Your task to perform on an android device: open app "Adobe Acrobat Reader" (install if not already installed) and go to login screen Image 0: 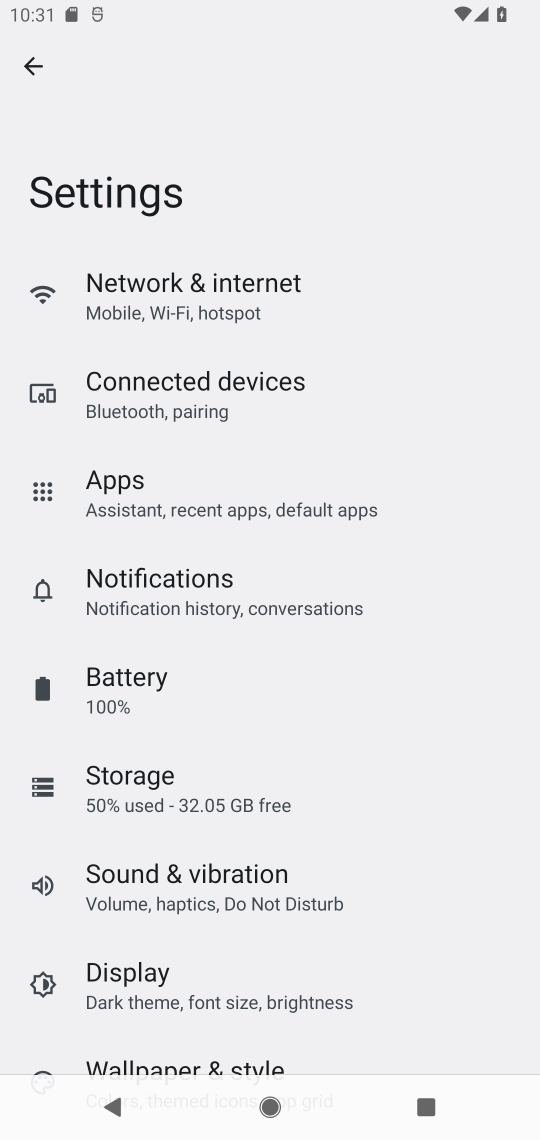
Step 0: press home button
Your task to perform on an android device: open app "Adobe Acrobat Reader" (install if not already installed) and go to login screen Image 1: 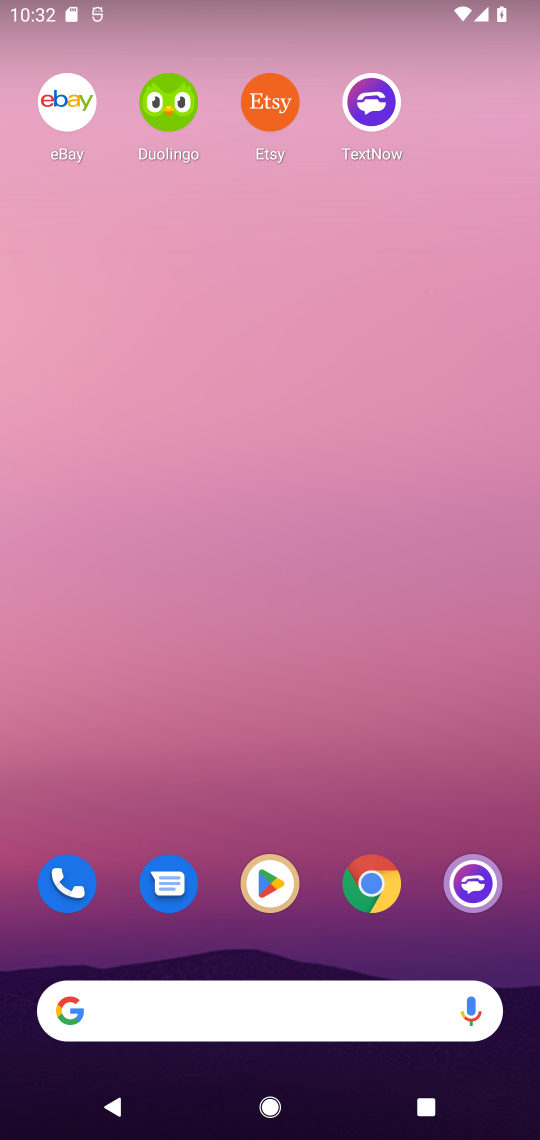
Step 1: drag from (319, 955) to (298, 166)
Your task to perform on an android device: open app "Adobe Acrobat Reader" (install if not already installed) and go to login screen Image 2: 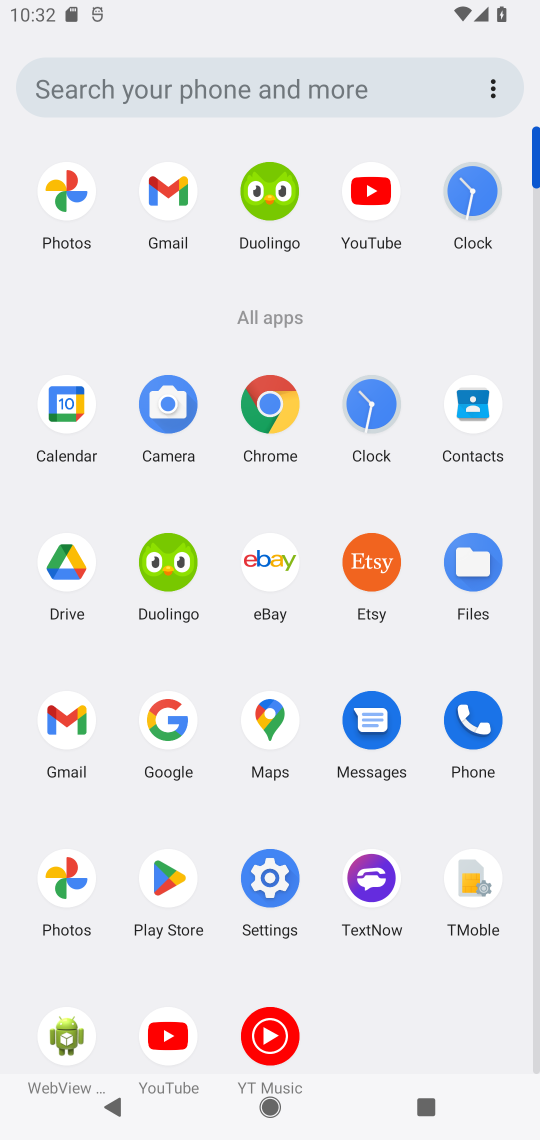
Step 2: click (163, 875)
Your task to perform on an android device: open app "Adobe Acrobat Reader" (install if not already installed) and go to login screen Image 3: 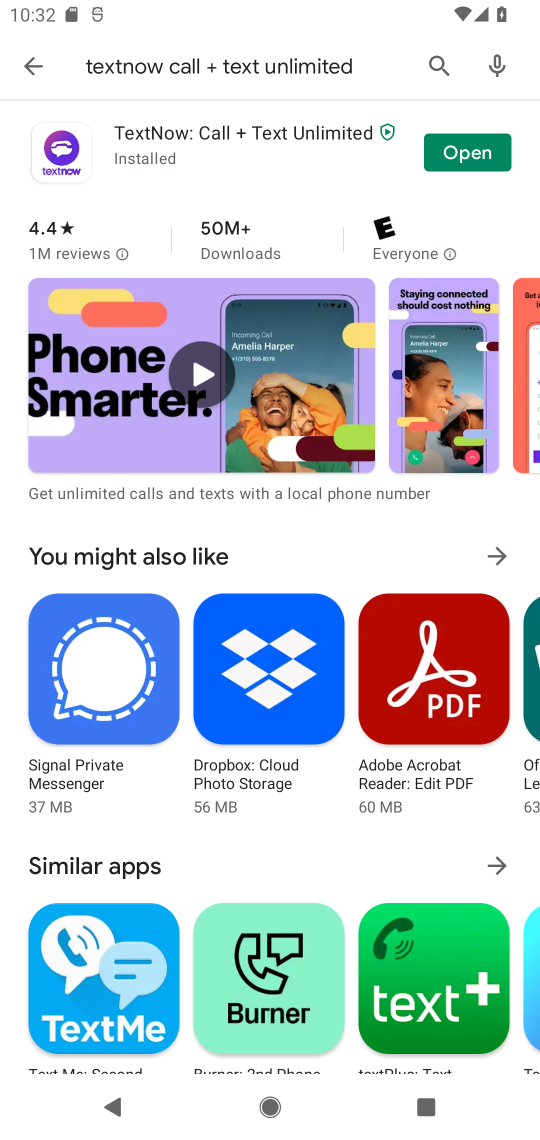
Step 3: click (438, 57)
Your task to perform on an android device: open app "Adobe Acrobat Reader" (install if not already installed) and go to login screen Image 4: 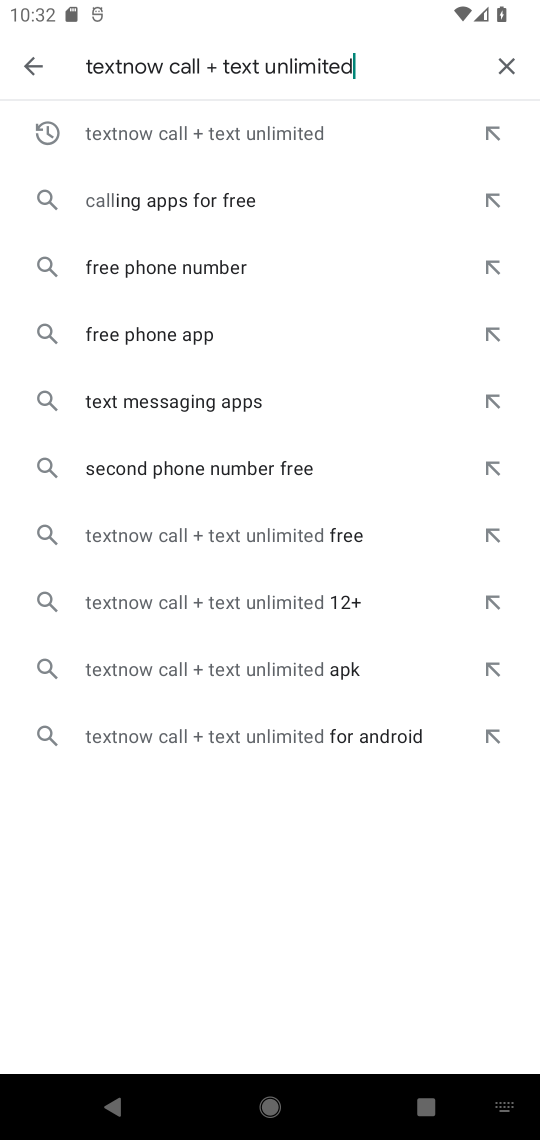
Step 4: click (505, 54)
Your task to perform on an android device: open app "Adobe Acrobat Reader" (install if not already installed) and go to login screen Image 5: 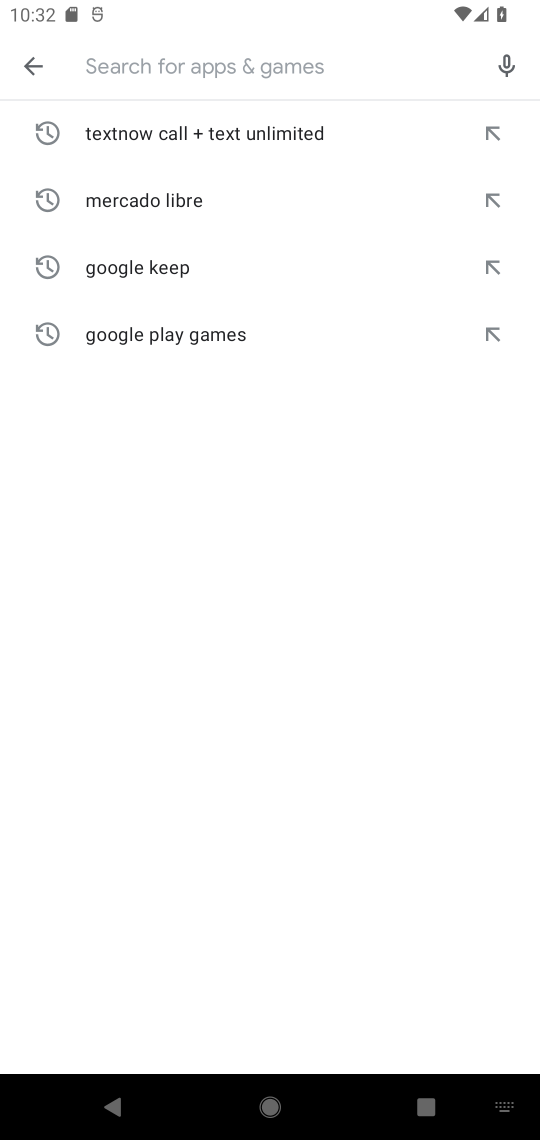
Step 5: type "Adobe Acrobat Reader"
Your task to perform on an android device: open app "Adobe Acrobat Reader" (install if not already installed) and go to login screen Image 6: 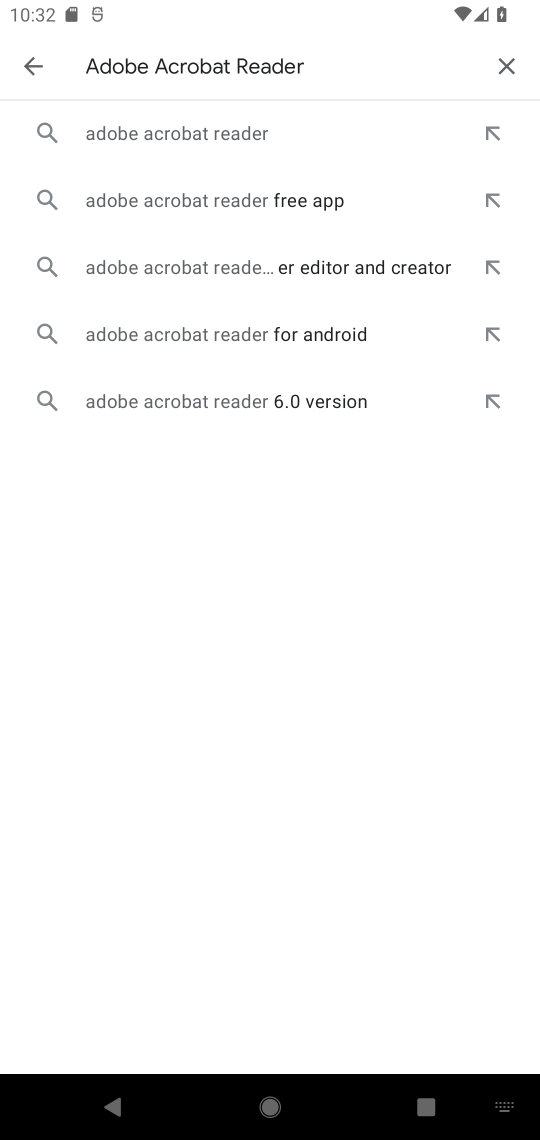
Step 6: click (208, 139)
Your task to perform on an android device: open app "Adobe Acrobat Reader" (install if not already installed) and go to login screen Image 7: 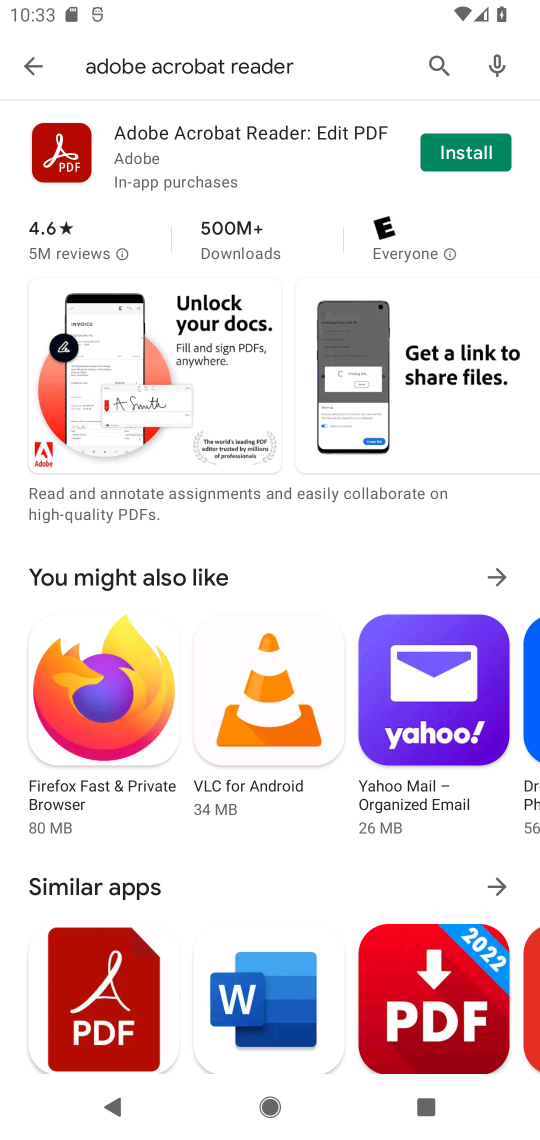
Step 7: click (446, 149)
Your task to perform on an android device: open app "Adobe Acrobat Reader" (install if not already installed) and go to login screen Image 8: 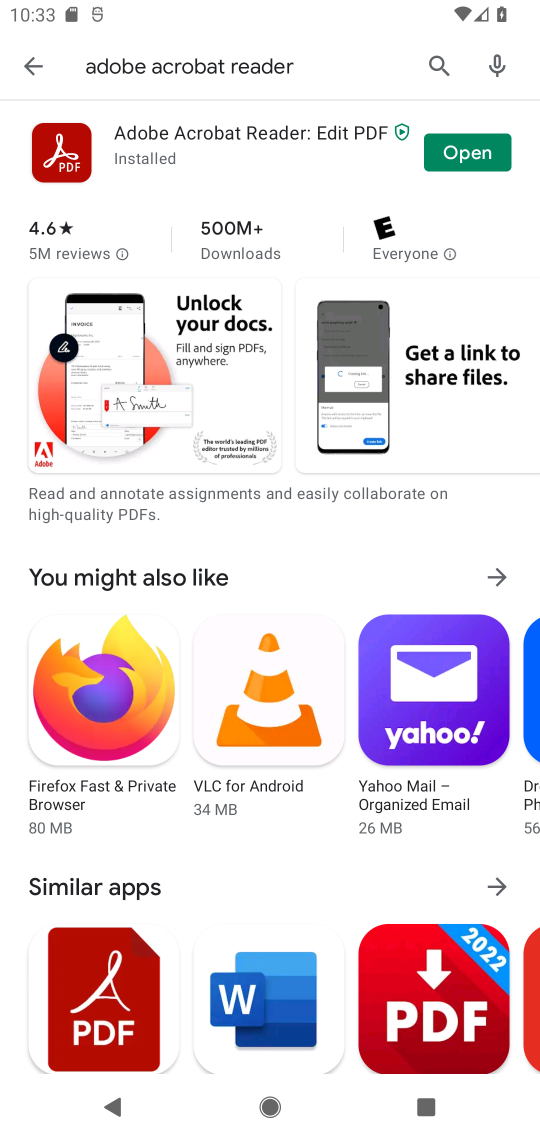
Step 8: click (469, 161)
Your task to perform on an android device: open app "Adobe Acrobat Reader" (install if not already installed) and go to login screen Image 9: 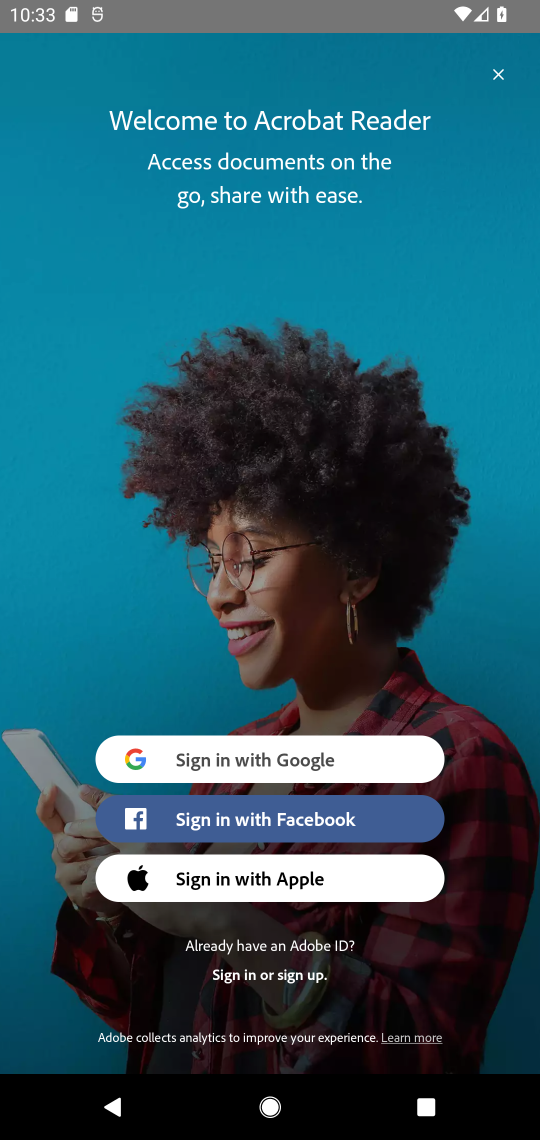
Step 9: click (299, 974)
Your task to perform on an android device: open app "Adobe Acrobat Reader" (install if not already installed) and go to login screen Image 10: 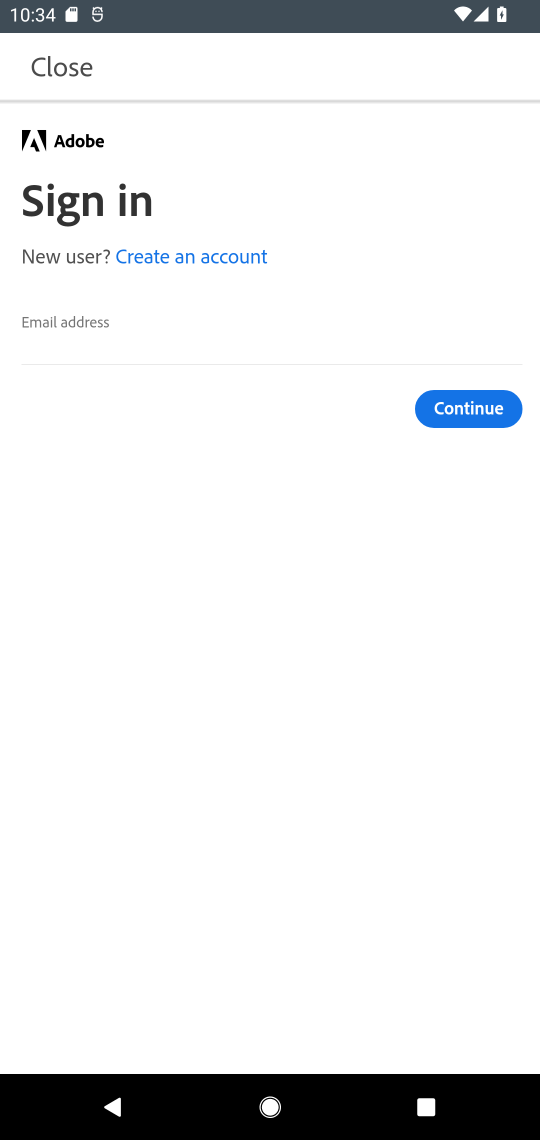
Step 10: task complete